Your task to perform on an android device: Go to sound settings Image 0: 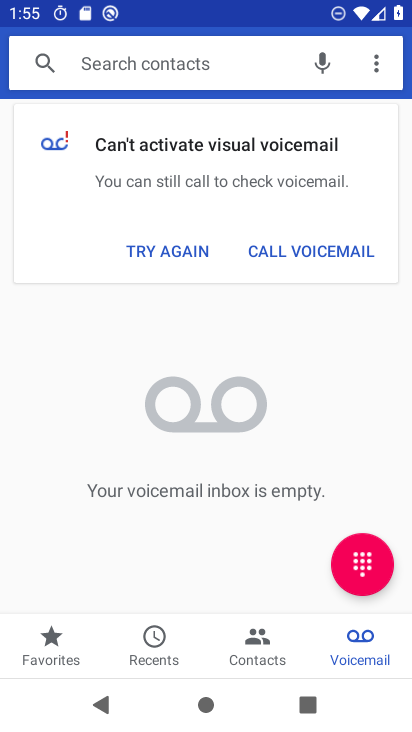
Step 0: press home button
Your task to perform on an android device: Go to sound settings Image 1: 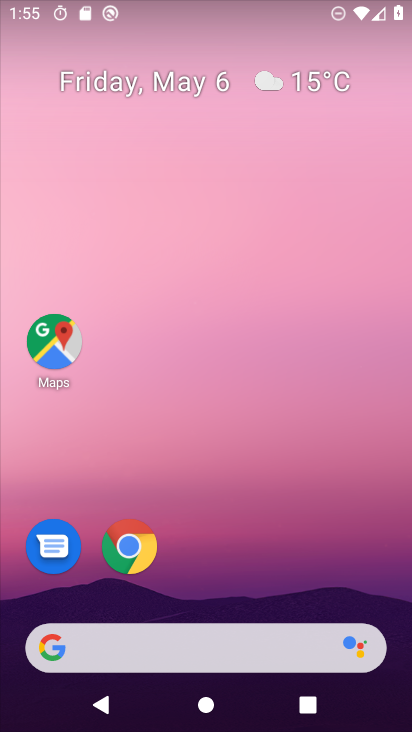
Step 1: drag from (250, 601) to (239, 144)
Your task to perform on an android device: Go to sound settings Image 2: 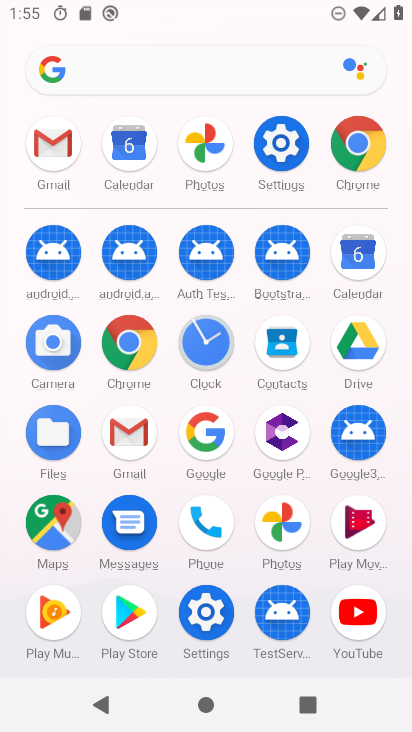
Step 2: click (287, 145)
Your task to perform on an android device: Go to sound settings Image 3: 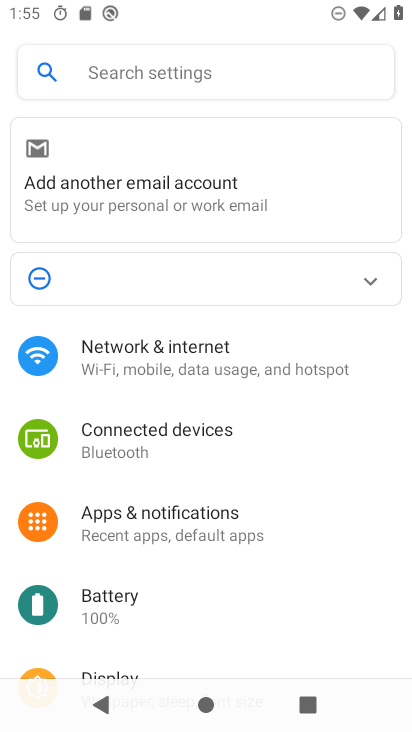
Step 3: drag from (273, 624) to (291, 366)
Your task to perform on an android device: Go to sound settings Image 4: 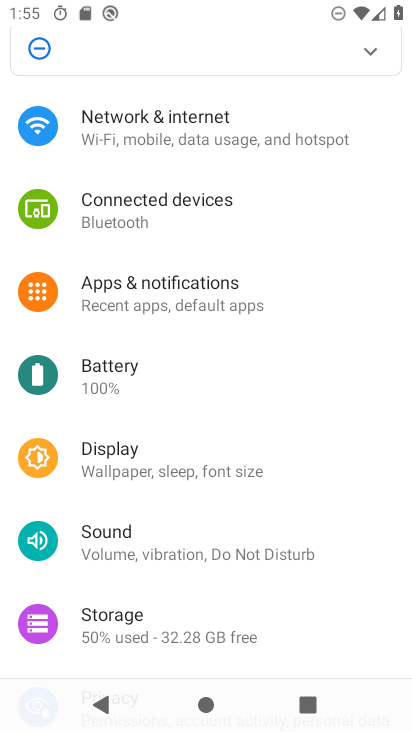
Step 4: click (213, 554)
Your task to perform on an android device: Go to sound settings Image 5: 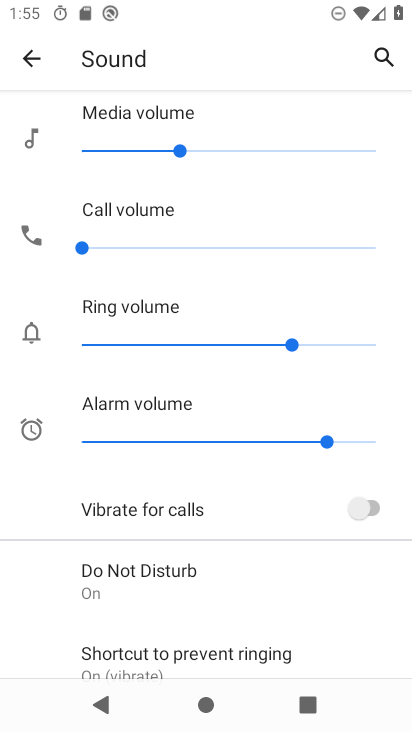
Step 5: task complete